Your task to perform on an android device: When is my next appointment? Image 0: 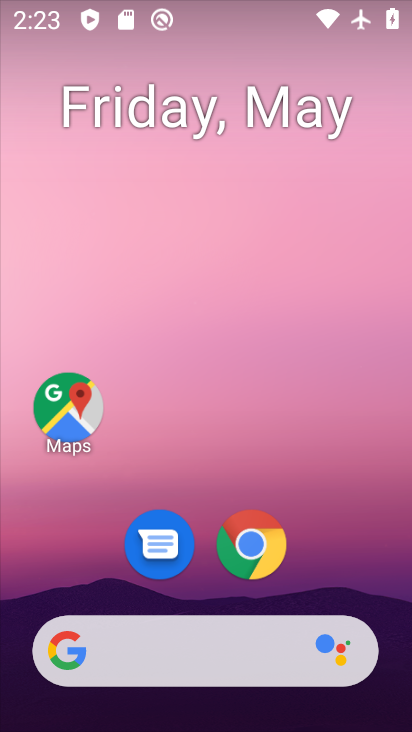
Step 0: drag from (198, 570) to (309, 25)
Your task to perform on an android device: When is my next appointment? Image 1: 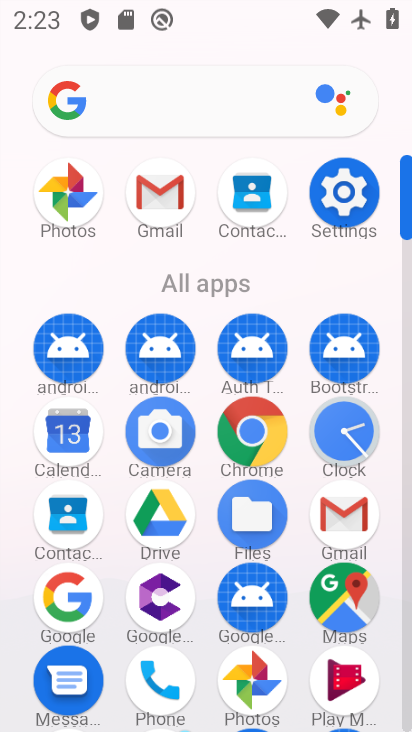
Step 1: click (67, 425)
Your task to perform on an android device: When is my next appointment? Image 2: 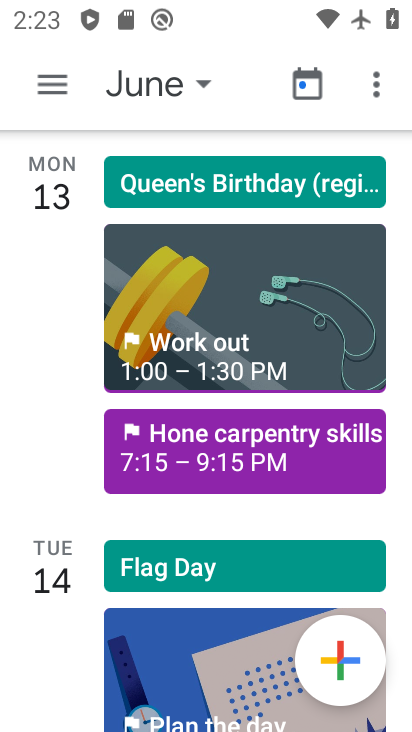
Step 2: drag from (196, 642) to (296, 135)
Your task to perform on an android device: When is my next appointment? Image 3: 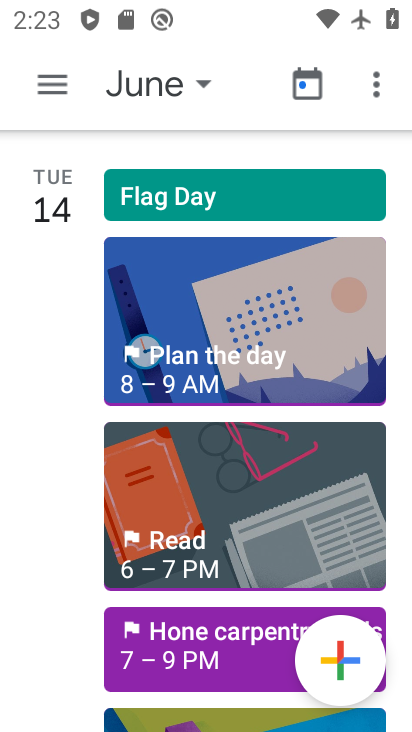
Step 3: click (195, 329)
Your task to perform on an android device: When is my next appointment? Image 4: 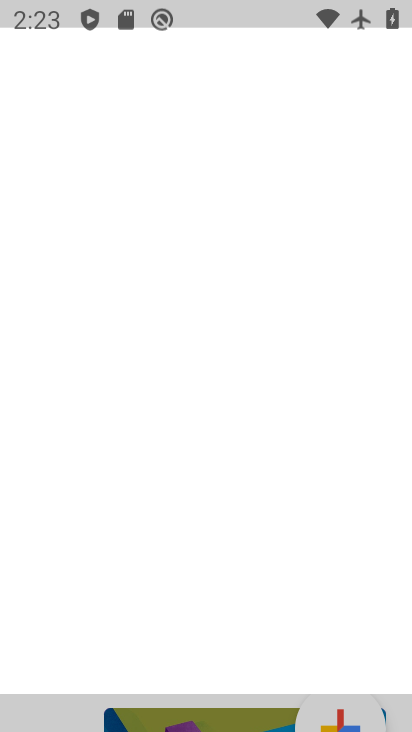
Step 4: task complete